Your task to perform on an android device: Go to location settings Image 0: 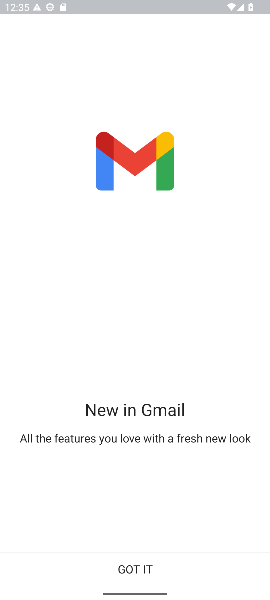
Step 0: press back button
Your task to perform on an android device: Go to location settings Image 1: 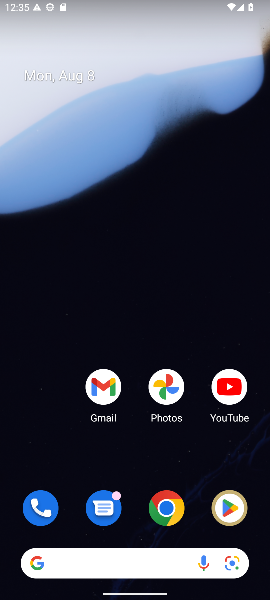
Step 1: click (125, 530)
Your task to perform on an android device: Go to location settings Image 2: 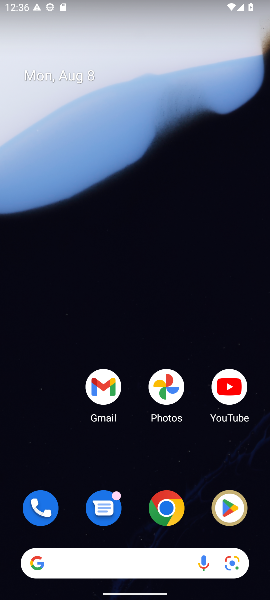
Step 2: drag from (129, 505) to (139, 195)
Your task to perform on an android device: Go to location settings Image 3: 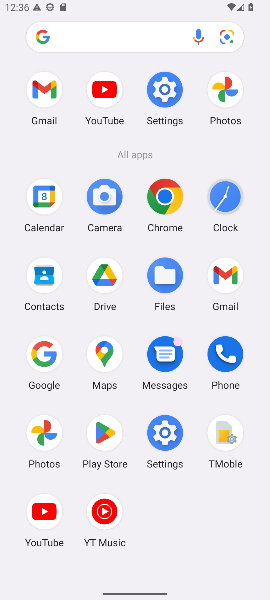
Step 3: click (168, 446)
Your task to perform on an android device: Go to location settings Image 4: 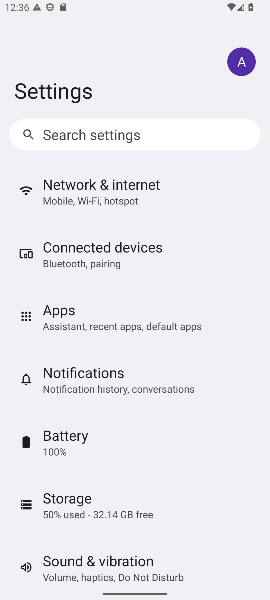
Step 4: drag from (89, 454) to (53, 197)
Your task to perform on an android device: Go to location settings Image 5: 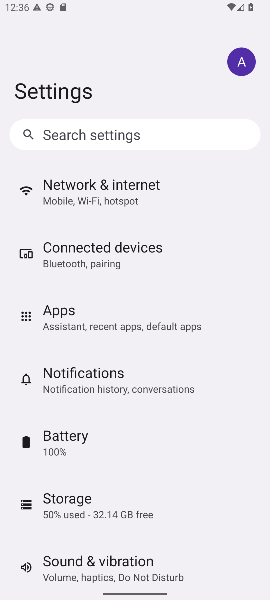
Step 5: drag from (100, 506) to (128, 238)
Your task to perform on an android device: Go to location settings Image 6: 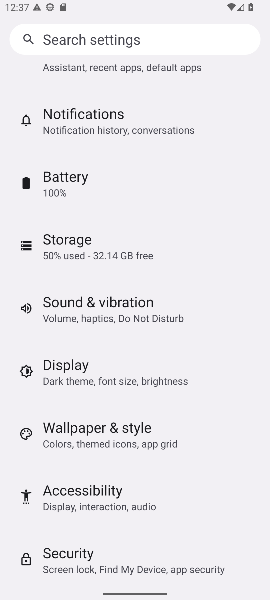
Step 6: drag from (106, 476) to (112, 315)
Your task to perform on an android device: Go to location settings Image 7: 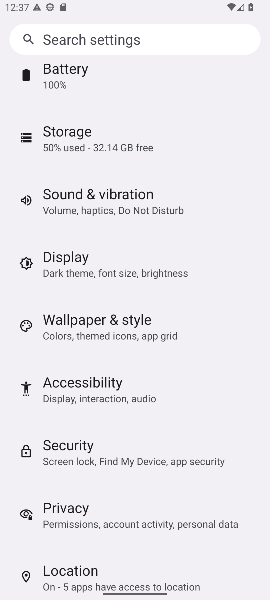
Step 7: click (68, 577)
Your task to perform on an android device: Go to location settings Image 8: 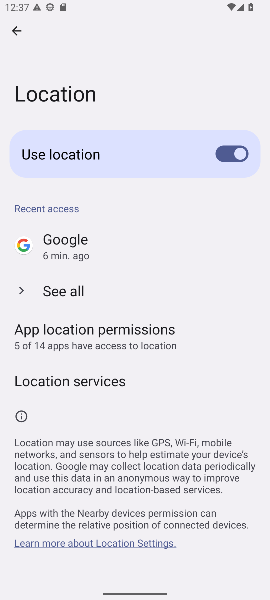
Step 8: task complete